Your task to perform on an android device: check google app version Image 0: 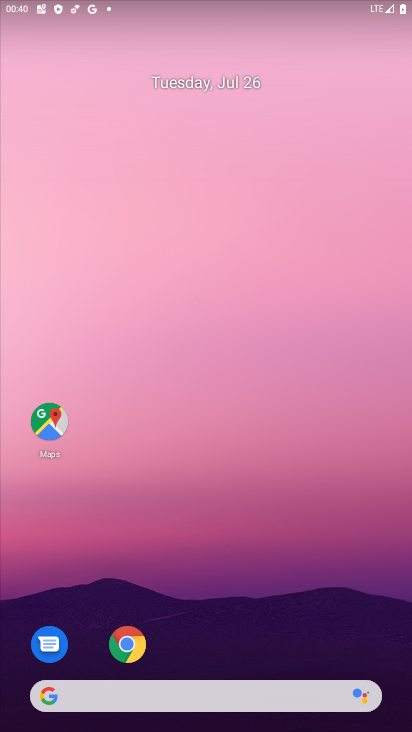
Step 0: drag from (231, 670) to (255, 36)
Your task to perform on an android device: check google app version Image 1: 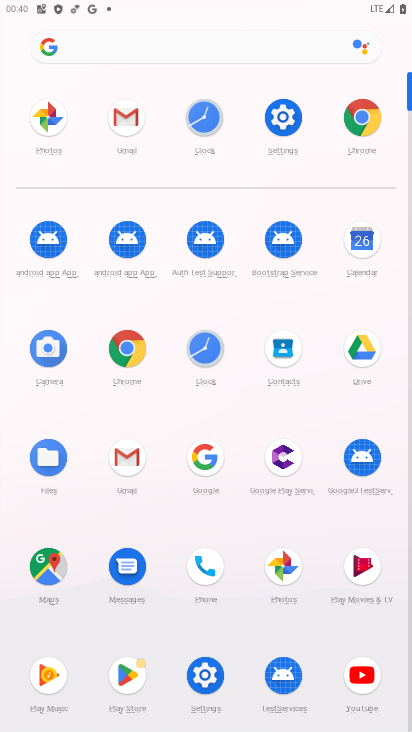
Step 1: click (210, 461)
Your task to perform on an android device: check google app version Image 2: 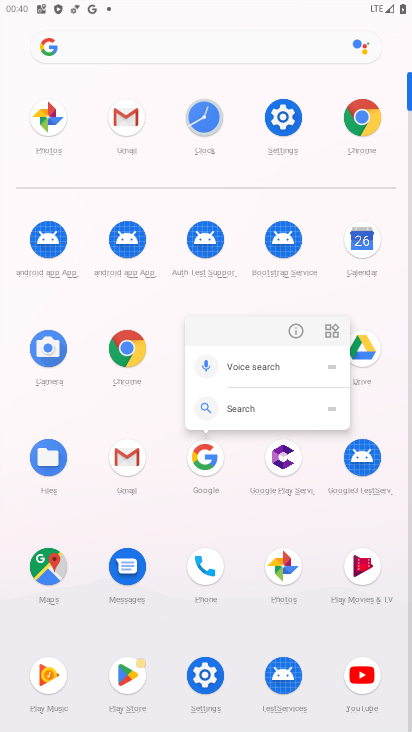
Step 2: click (289, 330)
Your task to perform on an android device: check google app version Image 3: 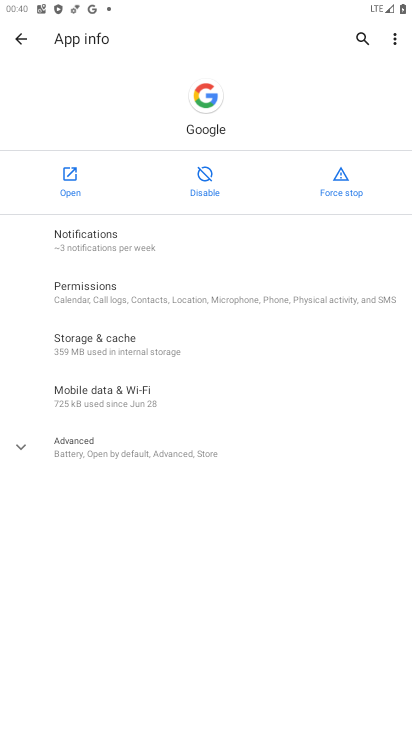
Step 3: click (27, 450)
Your task to perform on an android device: check google app version Image 4: 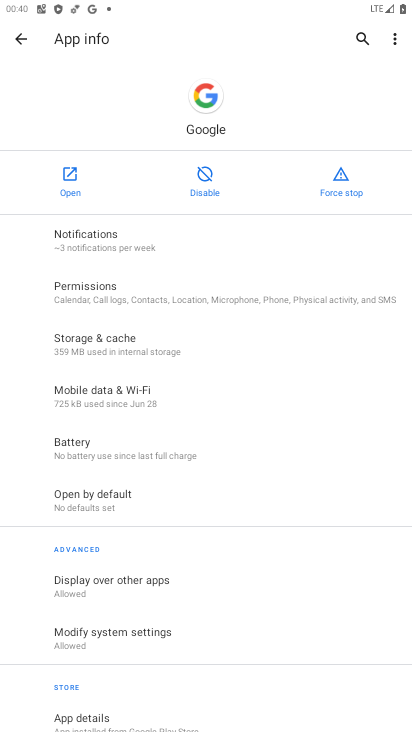
Step 4: task complete